Your task to perform on an android device: set the timer Image 0: 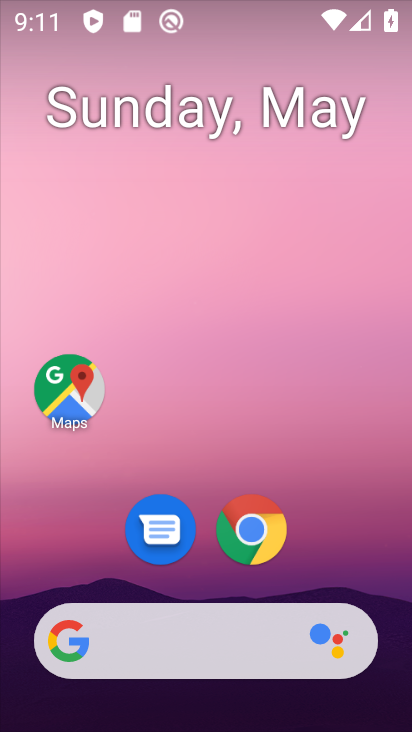
Step 0: drag from (218, 566) to (215, 99)
Your task to perform on an android device: set the timer Image 1: 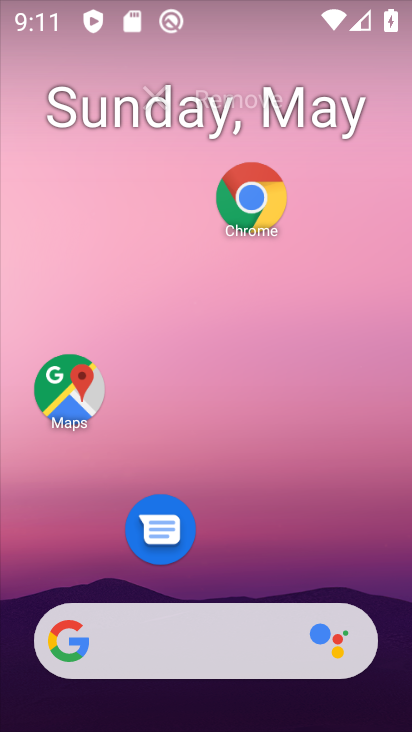
Step 1: click (87, 162)
Your task to perform on an android device: set the timer Image 2: 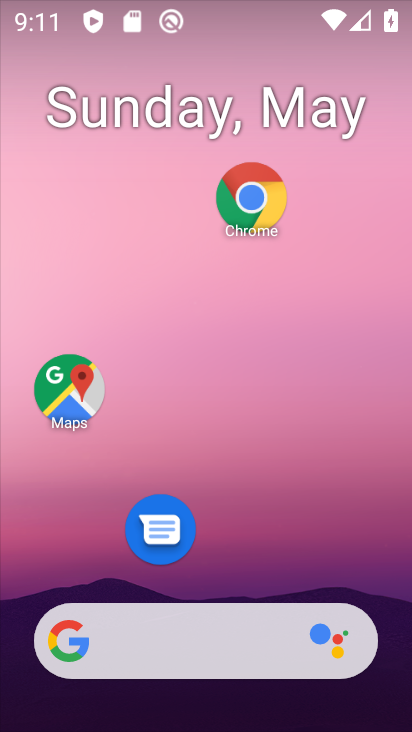
Step 2: drag from (254, 542) to (237, 283)
Your task to perform on an android device: set the timer Image 3: 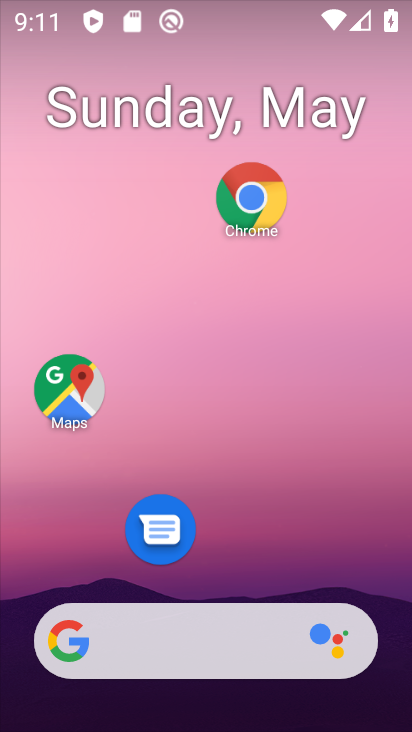
Step 3: drag from (265, 528) to (177, 68)
Your task to perform on an android device: set the timer Image 4: 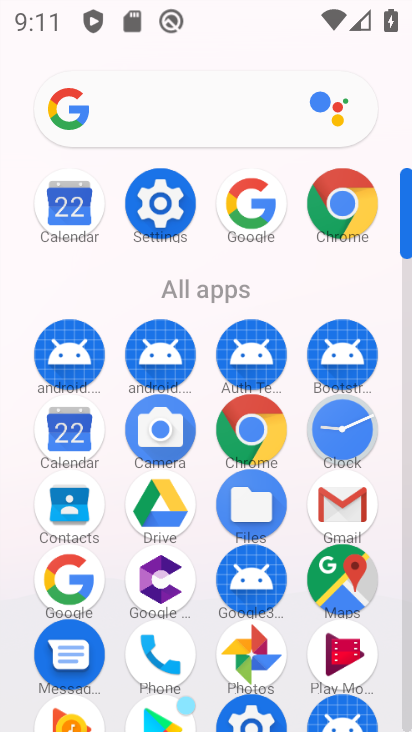
Step 4: drag from (227, 575) to (199, 140)
Your task to perform on an android device: set the timer Image 5: 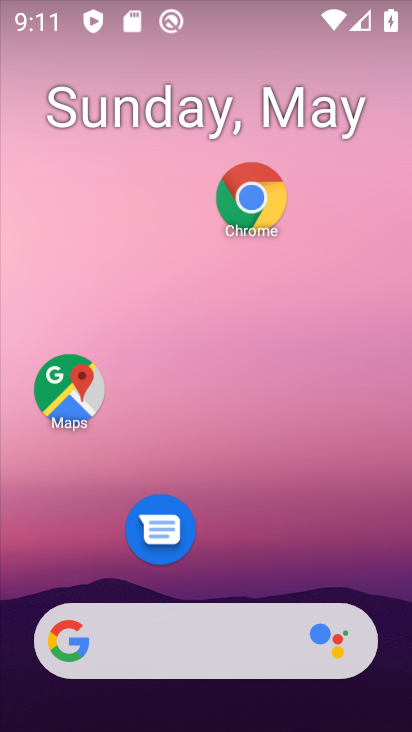
Step 5: drag from (251, 540) to (248, 63)
Your task to perform on an android device: set the timer Image 6: 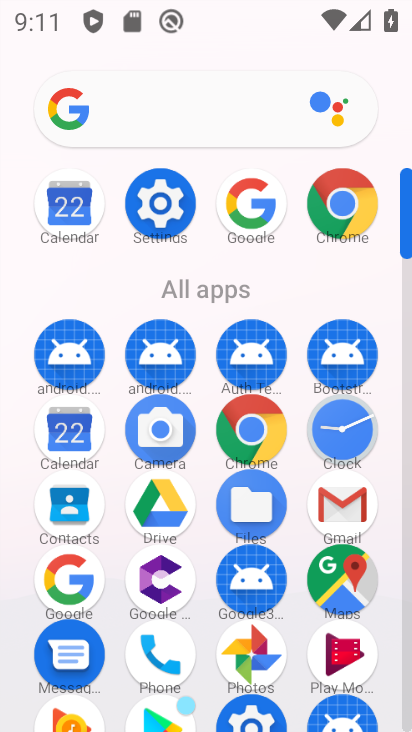
Step 6: click (348, 436)
Your task to perform on an android device: set the timer Image 7: 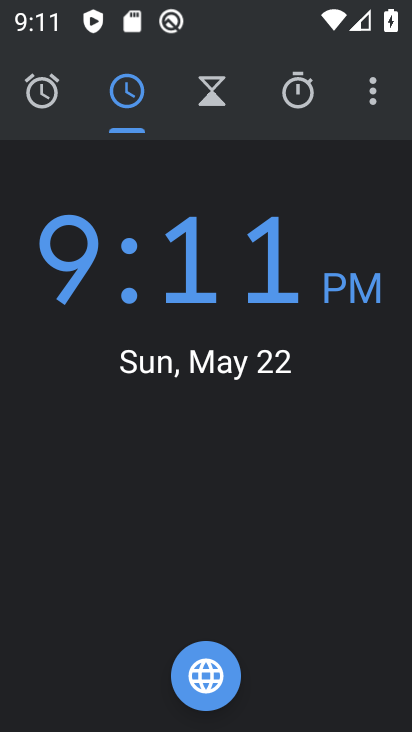
Step 7: click (213, 92)
Your task to perform on an android device: set the timer Image 8: 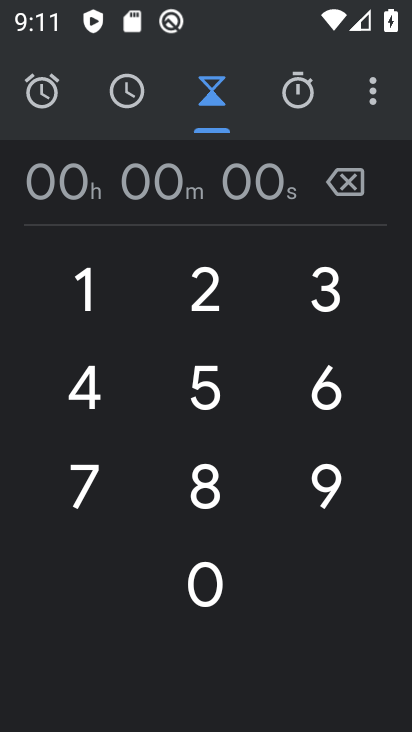
Step 8: click (213, 296)
Your task to perform on an android device: set the timer Image 9: 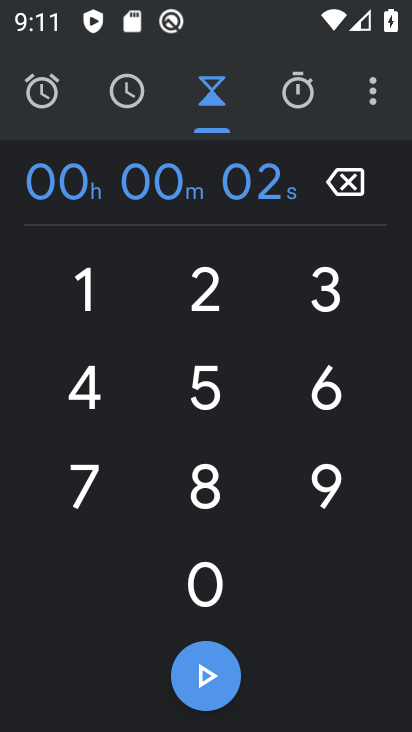
Step 9: click (207, 301)
Your task to perform on an android device: set the timer Image 10: 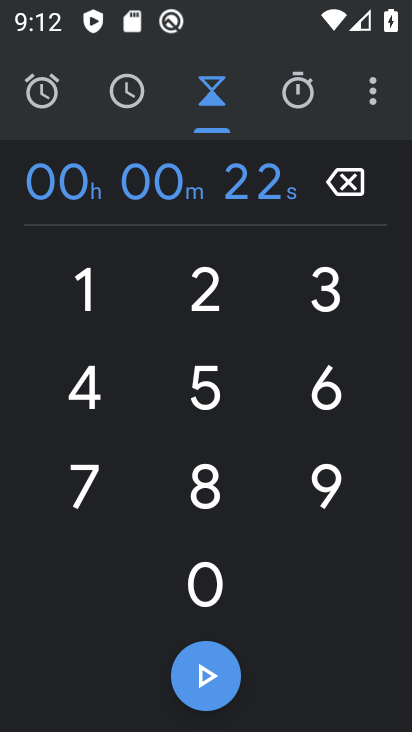
Step 10: task complete